Your task to perform on an android device: check out phone information Image 0: 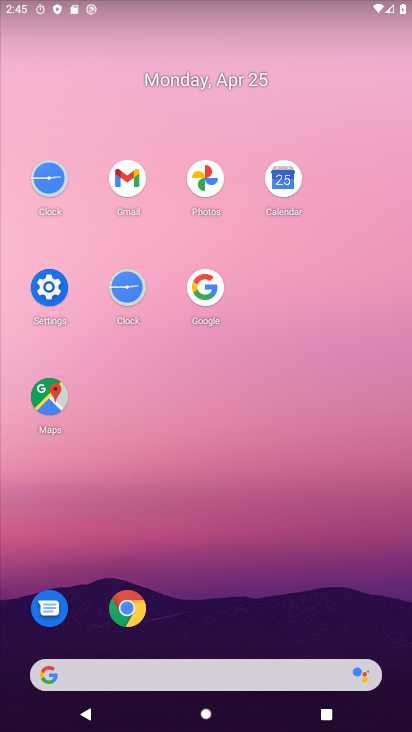
Step 0: click (62, 287)
Your task to perform on an android device: check out phone information Image 1: 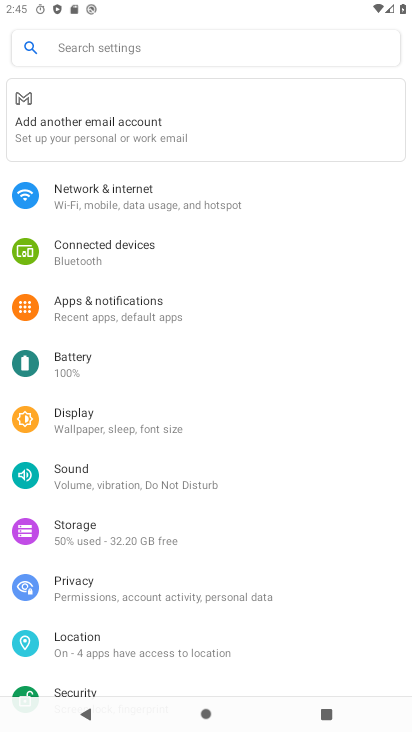
Step 1: drag from (321, 559) to (297, 139)
Your task to perform on an android device: check out phone information Image 2: 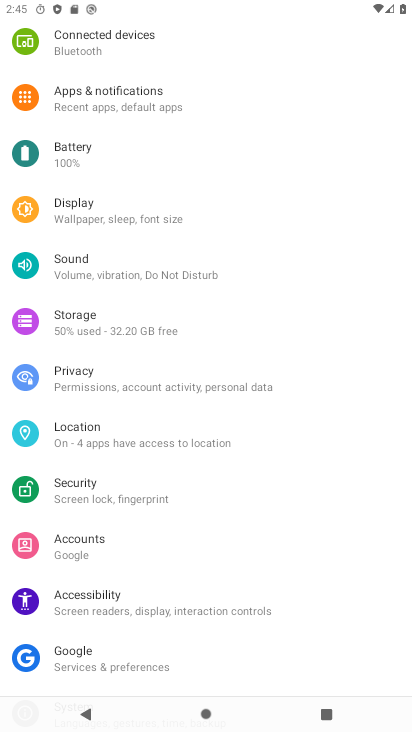
Step 2: drag from (245, 565) to (274, 171)
Your task to perform on an android device: check out phone information Image 3: 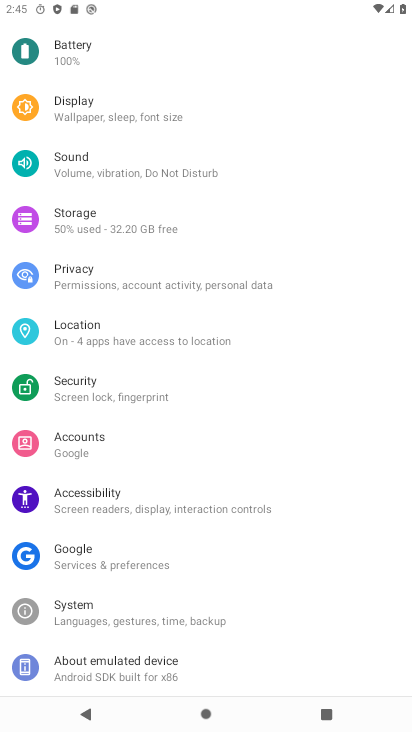
Step 3: click (141, 683)
Your task to perform on an android device: check out phone information Image 4: 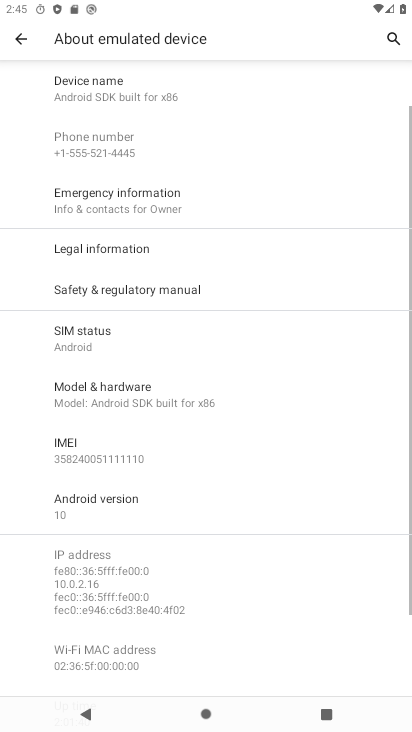
Step 4: click (203, 402)
Your task to perform on an android device: check out phone information Image 5: 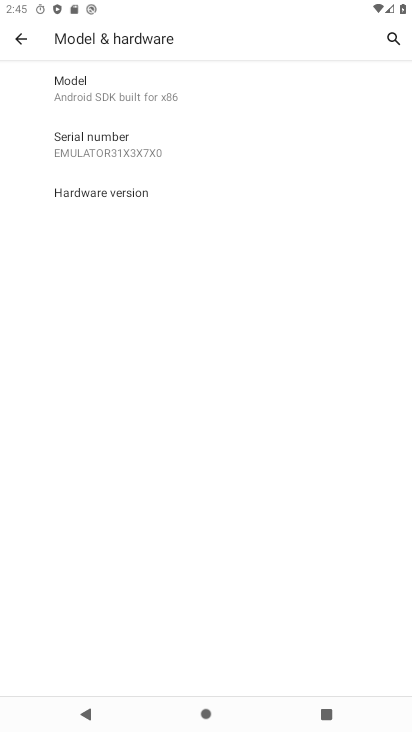
Step 5: task complete